Your task to perform on an android device: visit the assistant section in the google photos Image 0: 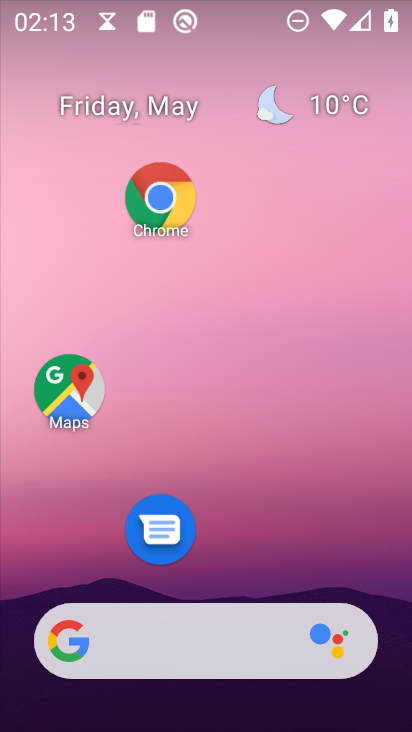
Step 0: click (280, 417)
Your task to perform on an android device: visit the assistant section in the google photos Image 1: 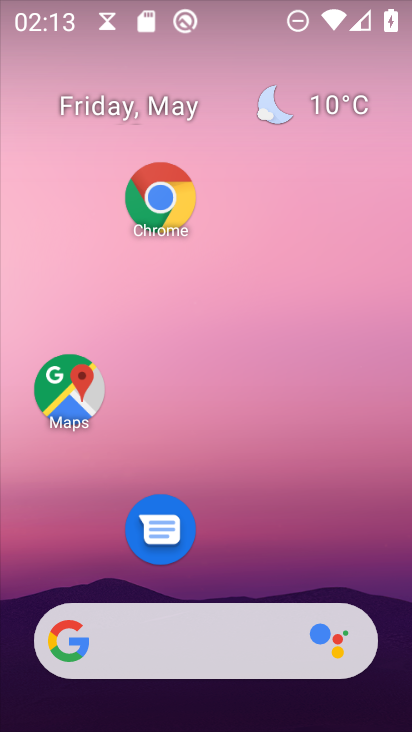
Step 1: drag from (279, 365) to (279, 182)
Your task to perform on an android device: visit the assistant section in the google photos Image 2: 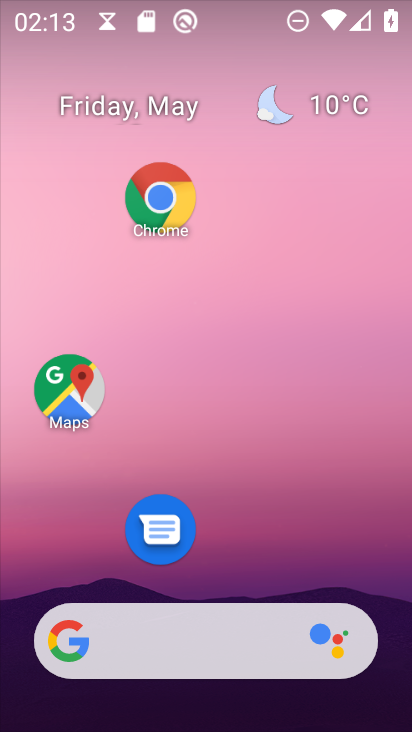
Step 2: drag from (235, 456) to (248, 188)
Your task to perform on an android device: visit the assistant section in the google photos Image 3: 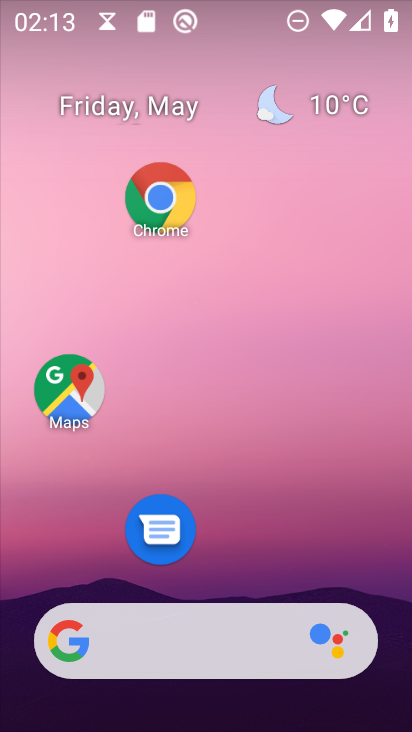
Step 3: drag from (198, 590) to (206, 226)
Your task to perform on an android device: visit the assistant section in the google photos Image 4: 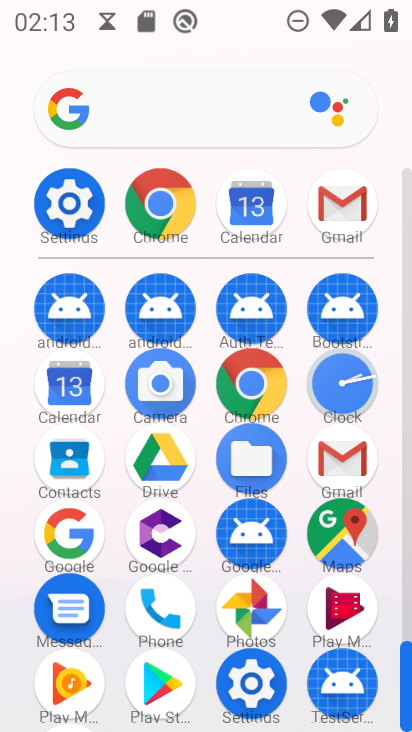
Step 4: click (260, 603)
Your task to perform on an android device: visit the assistant section in the google photos Image 5: 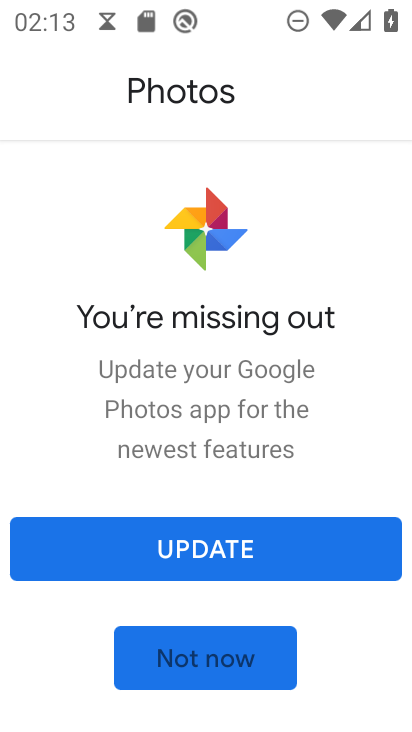
Step 5: click (218, 663)
Your task to perform on an android device: visit the assistant section in the google photos Image 6: 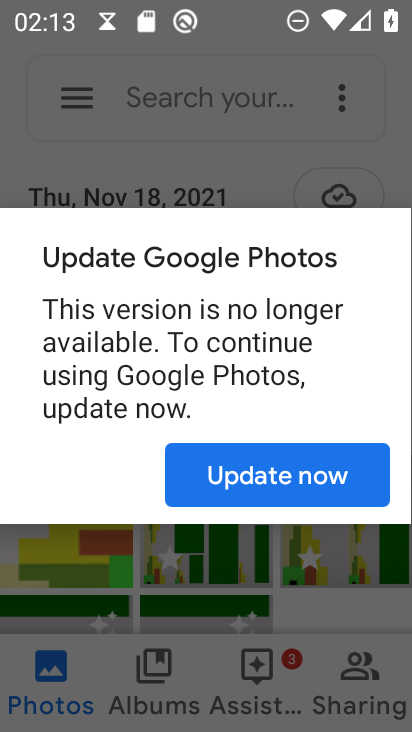
Step 6: click (248, 464)
Your task to perform on an android device: visit the assistant section in the google photos Image 7: 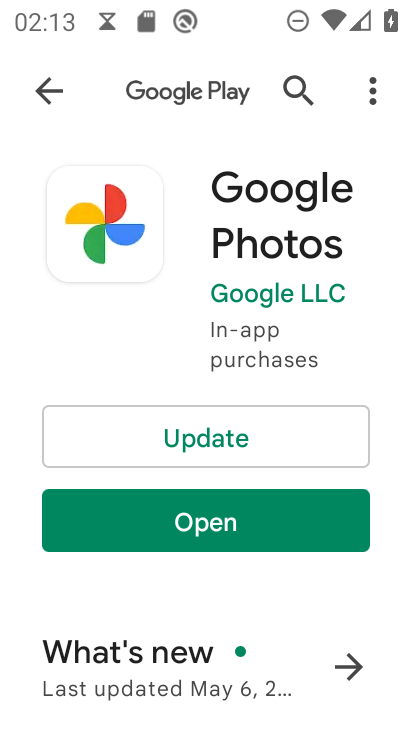
Step 7: press back button
Your task to perform on an android device: visit the assistant section in the google photos Image 8: 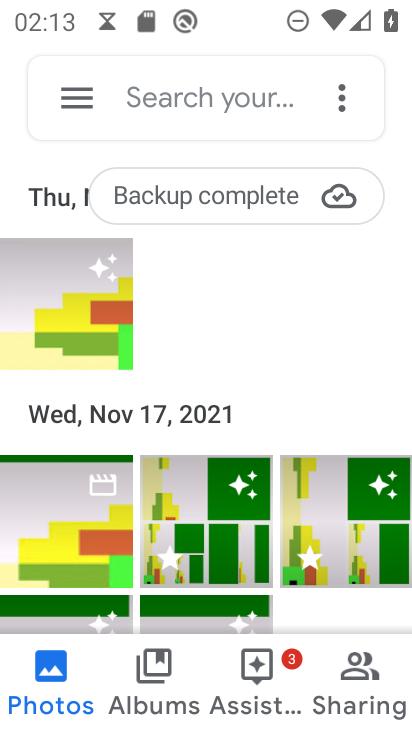
Step 8: click (77, 508)
Your task to perform on an android device: visit the assistant section in the google photos Image 9: 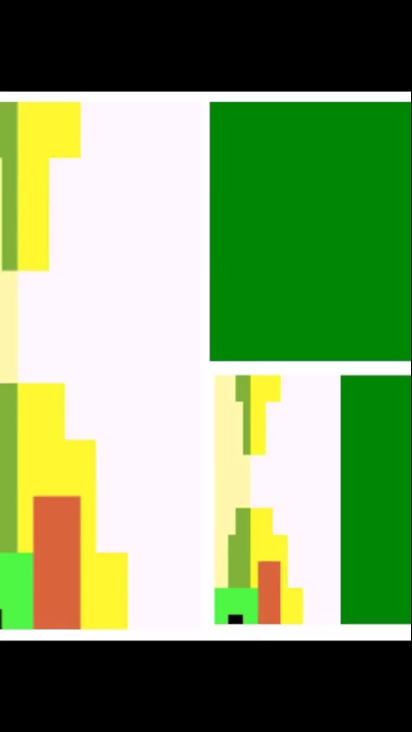
Step 9: press back button
Your task to perform on an android device: visit the assistant section in the google photos Image 10: 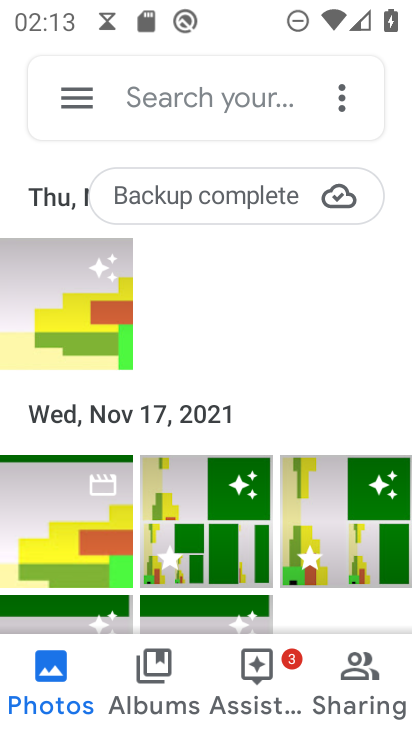
Step 10: click (233, 665)
Your task to perform on an android device: visit the assistant section in the google photos Image 11: 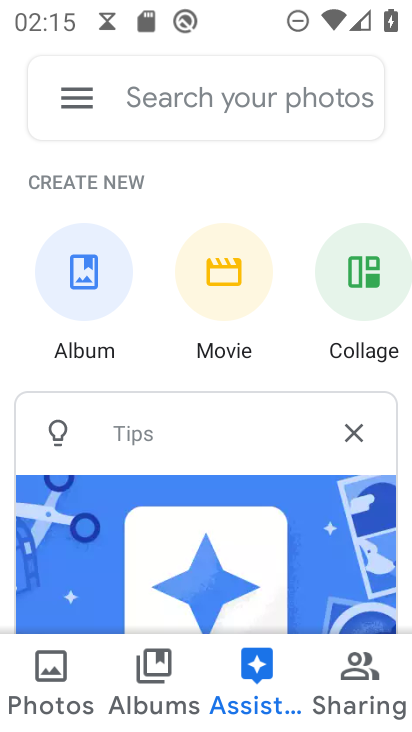
Step 11: task complete